Your task to perform on an android device: Turn on the flashlight Image 0: 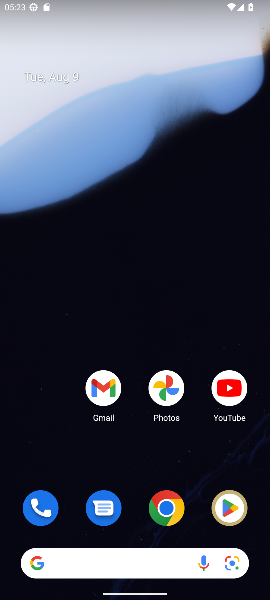
Step 0: press home button
Your task to perform on an android device: Turn on the flashlight Image 1: 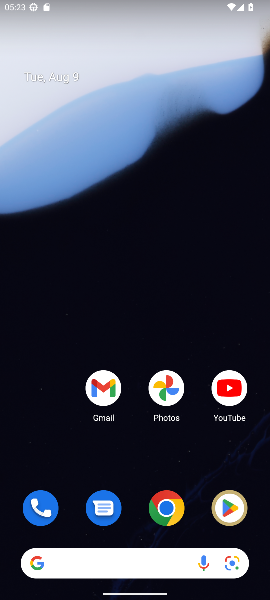
Step 1: drag from (131, 471) to (195, 4)
Your task to perform on an android device: Turn on the flashlight Image 2: 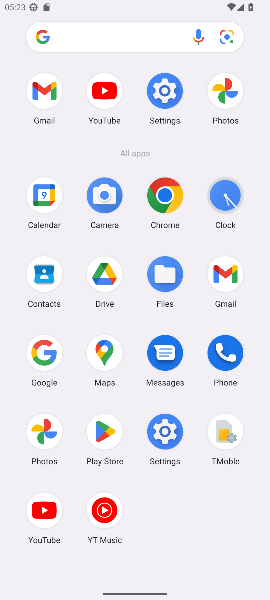
Step 2: click (163, 432)
Your task to perform on an android device: Turn on the flashlight Image 3: 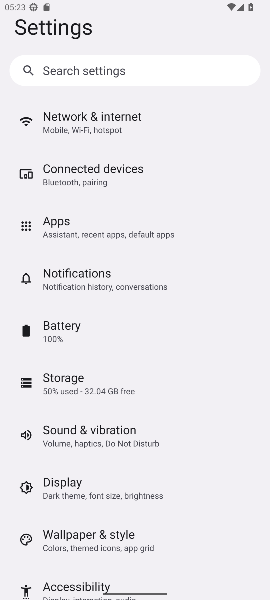
Step 3: task complete